Your task to perform on an android device: turn pop-ups off in chrome Image 0: 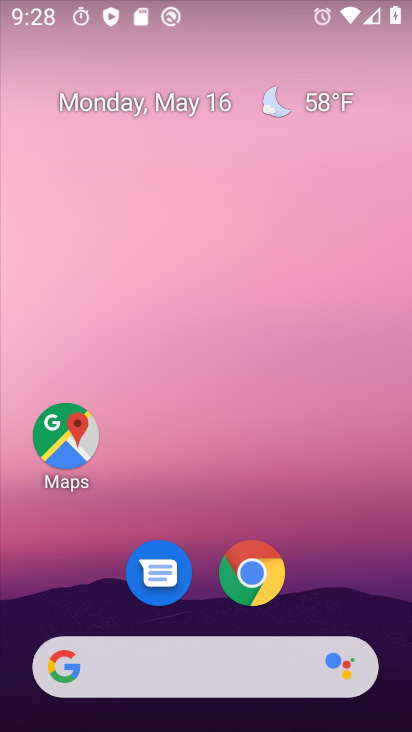
Step 0: drag from (274, 688) to (180, 184)
Your task to perform on an android device: turn pop-ups off in chrome Image 1: 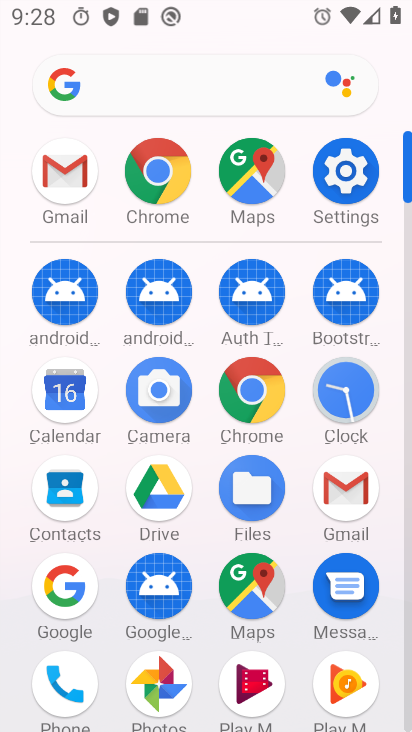
Step 1: click (157, 173)
Your task to perform on an android device: turn pop-ups off in chrome Image 2: 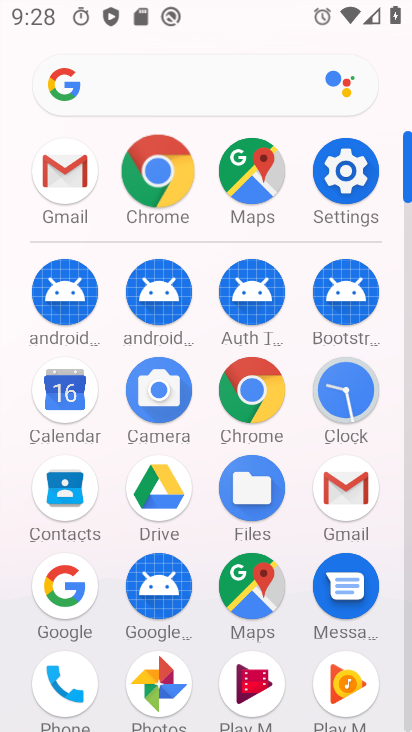
Step 2: click (157, 173)
Your task to perform on an android device: turn pop-ups off in chrome Image 3: 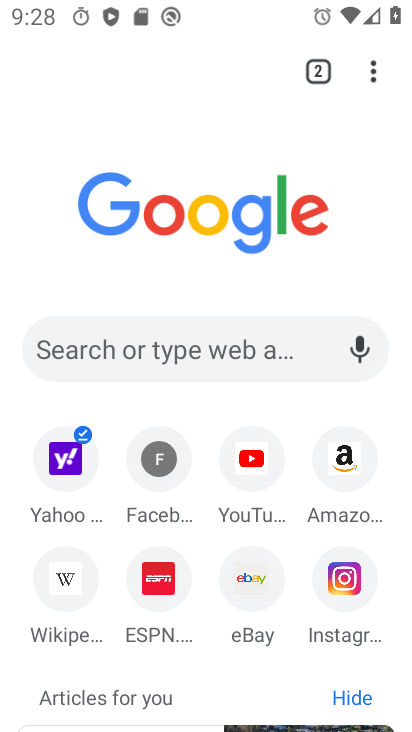
Step 3: click (367, 72)
Your task to perform on an android device: turn pop-ups off in chrome Image 4: 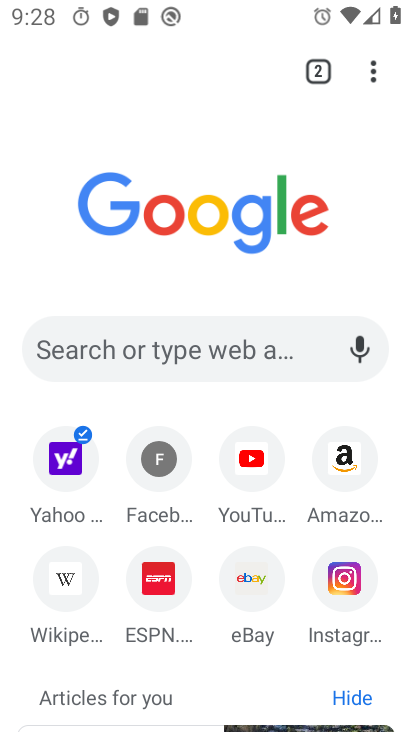
Step 4: click (368, 83)
Your task to perform on an android device: turn pop-ups off in chrome Image 5: 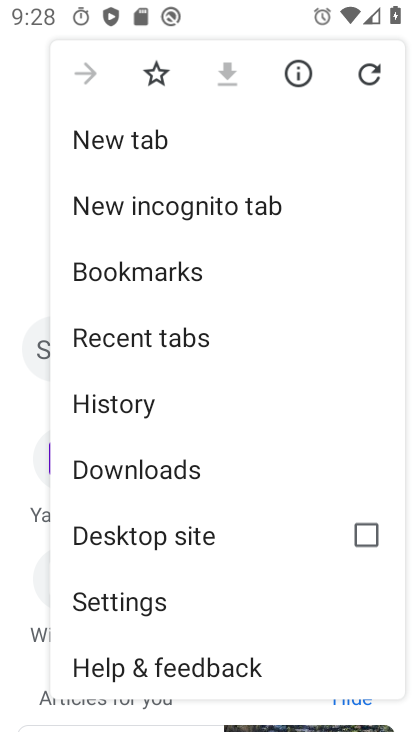
Step 5: click (44, 225)
Your task to perform on an android device: turn pop-ups off in chrome Image 6: 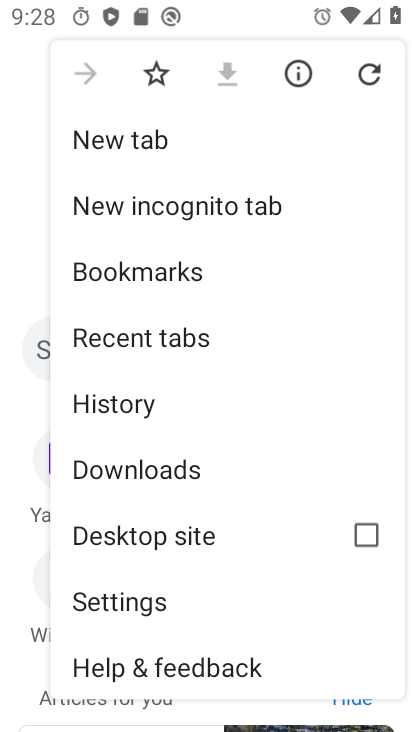
Step 6: click (40, 208)
Your task to perform on an android device: turn pop-ups off in chrome Image 7: 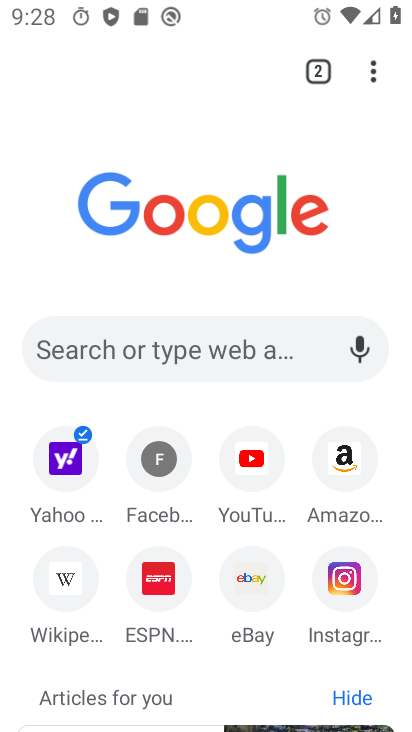
Step 7: click (40, 208)
Your task to perform on an android device: turn pop-ups off in chrome Image 8: 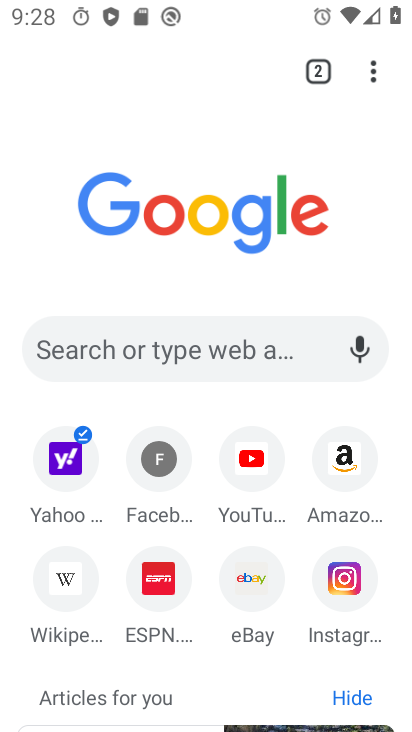
Step 8: click (40, 208)
Your task to perform on an android device: turn pop-ups off in chrome Image 9: 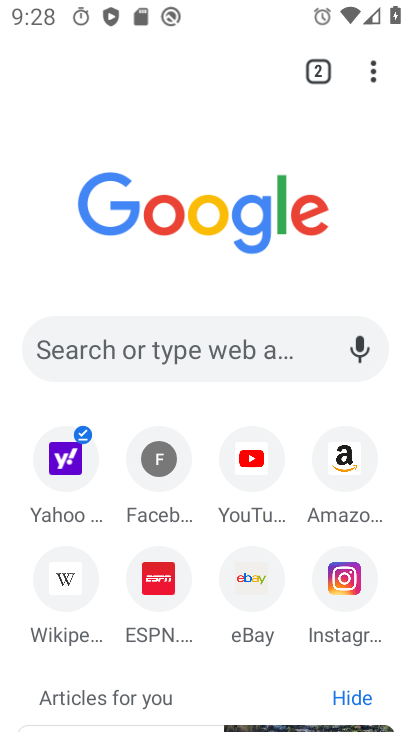
Step 9: press back button
Your task to perform on an android device: turn pop-ups off in chrome Image 10: 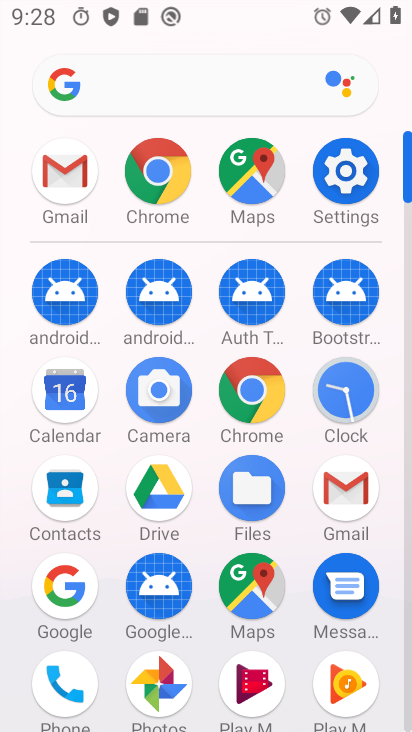
Step 10: click (157, 182)
Your task to perform on an android device: turn pop-ups off in chrome Image 11: 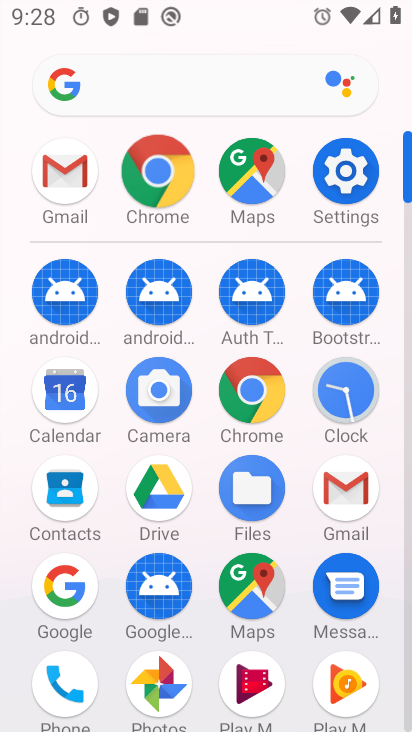
Step 11: click (161, 178)
Your task to perform on an android device: turn pop-ups off in chrome Image 12: 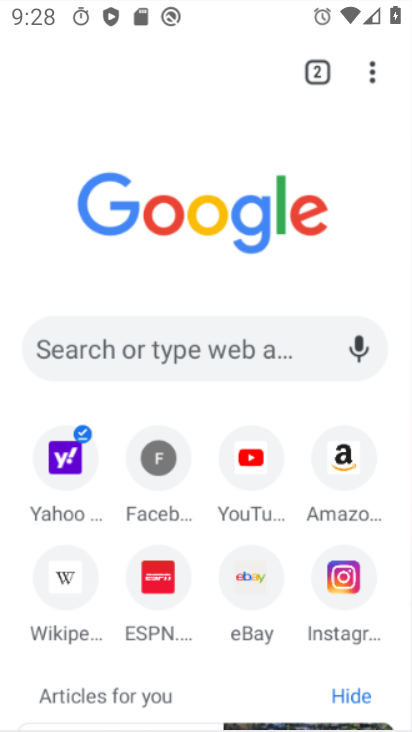
Step 12: click (162, 177)
Your task to perform on an android device: turn pop-ups off in chrome Image 13: 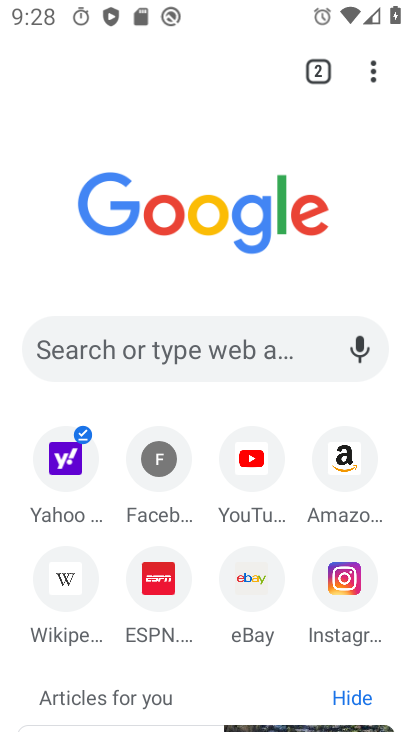
Step 13: drag from (364, 74) to (130, 597)
Your task to perform on an android device: turn pop-ups off in chrome Image 14: 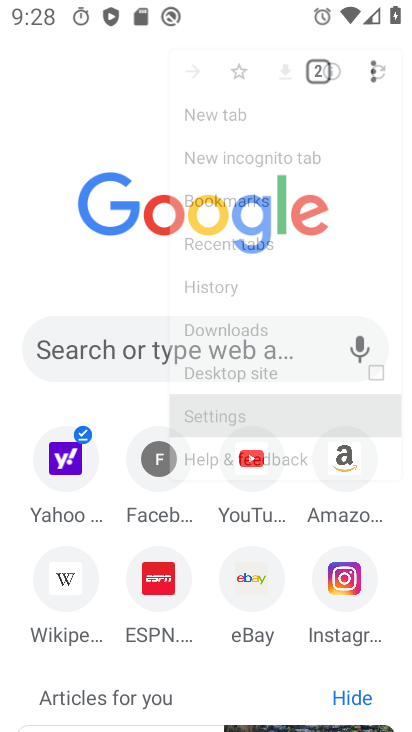
Step 14: click (136, 600)
Your task to perform on an android device: turn pop-ups off in chrome Image 15: 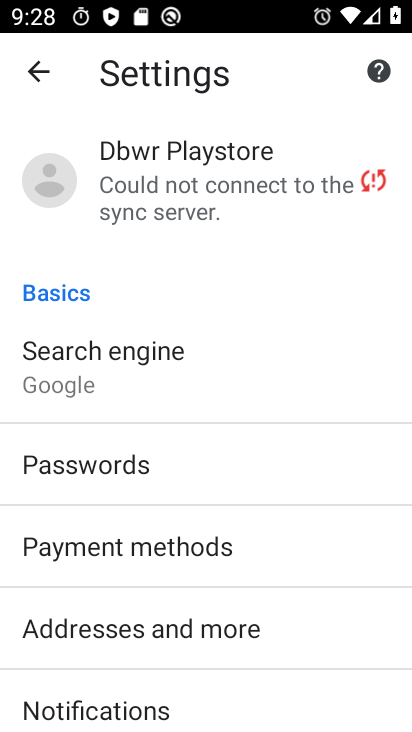
Step 15: drag from (122, 519) to (124, 110)
Your task to perform on an android device: turn pop-ups off in chrome Image 16: 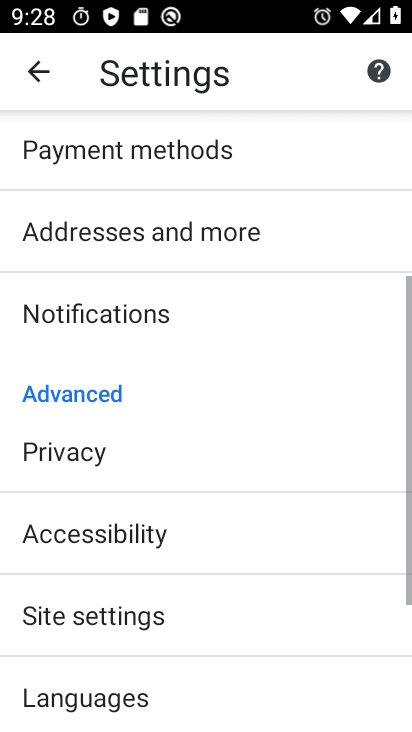
Step 16: drag from (179, 585) to (158, 259)
Your task to perform on an android device: turn pop-ups off in chrome Image 17: 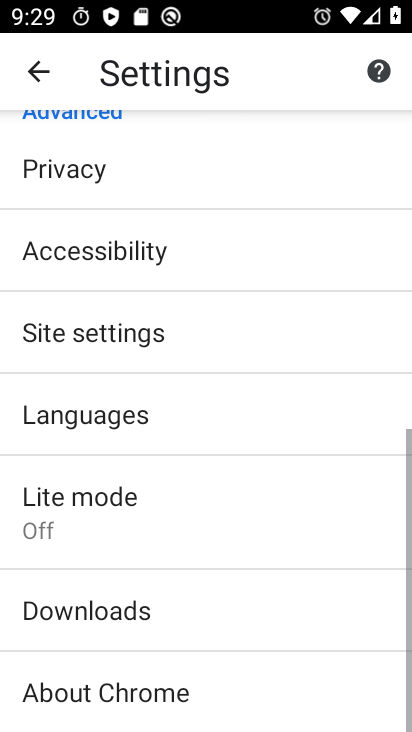
Step 17: drag from (186, 502) to (153, 191)
Your task to perform on an android device: turn pop-ups off in chrome Image 18: 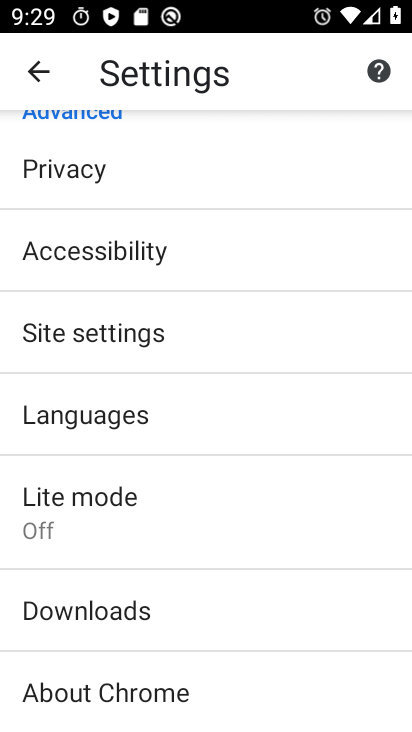
Step 18: click (71, 323)
Your task to perform on an android device: turn pop-ups off in chrome Image 19: 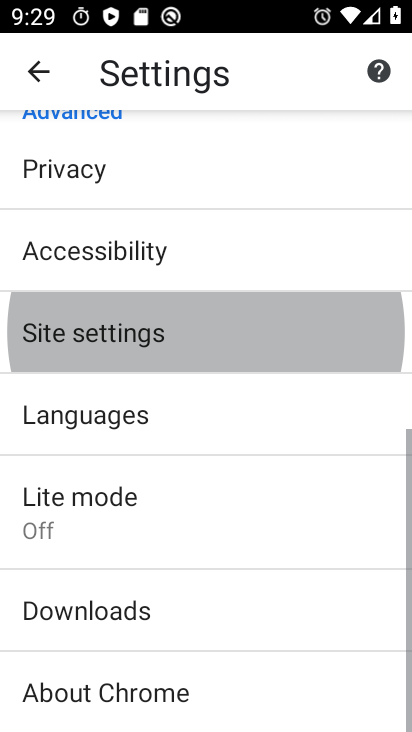
Step 19: click (71, 323)
Your task to perform on an android device: turn pop-ups off in chrome Image 20: 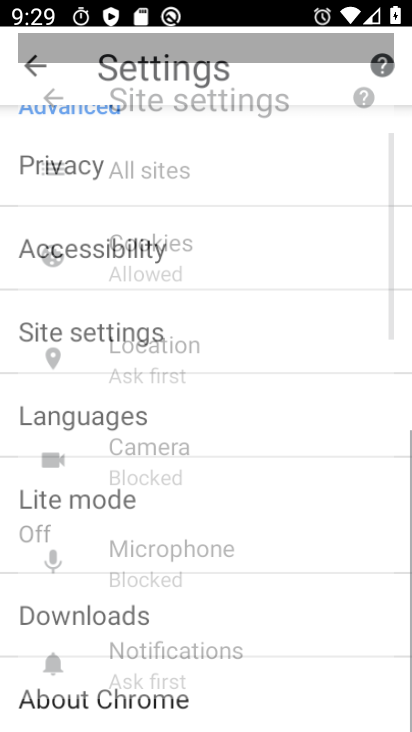
Step 20: click (71, 323)
Your task to perform on an android device: turn pop-ups off in chrome Image 21: 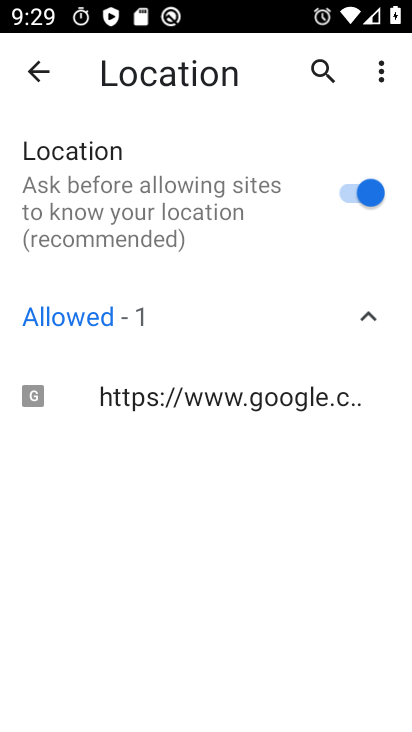
Step 21: click (32, 65)
Your task to perform on an android device: turn pop-ups off in chrome Image 22: 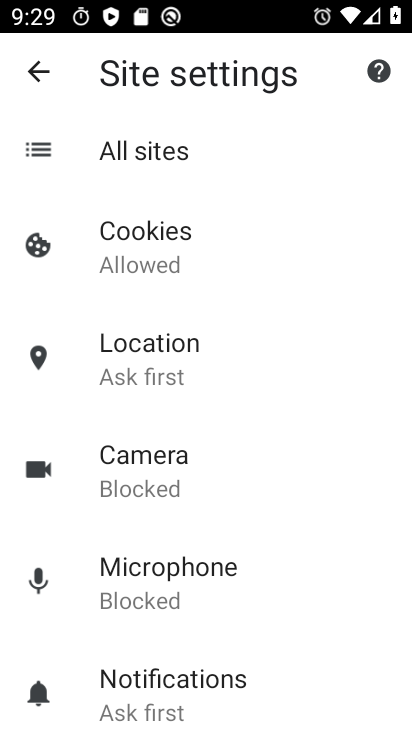
Step 22: drag from (185, 550) to (166, 23)
Your task to perform on an android device: turn pop-ups off in chrome Image 23: 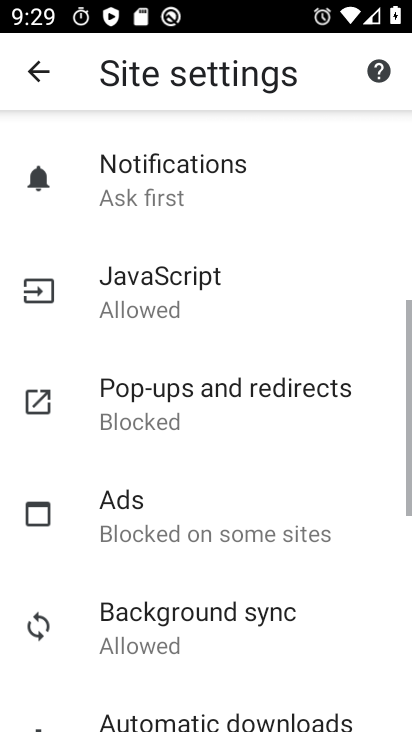
Step 23: drag from (156, 417) to (156, 65)
Your task to perform on an android device: turn pop-ups off in chrome Image 24: 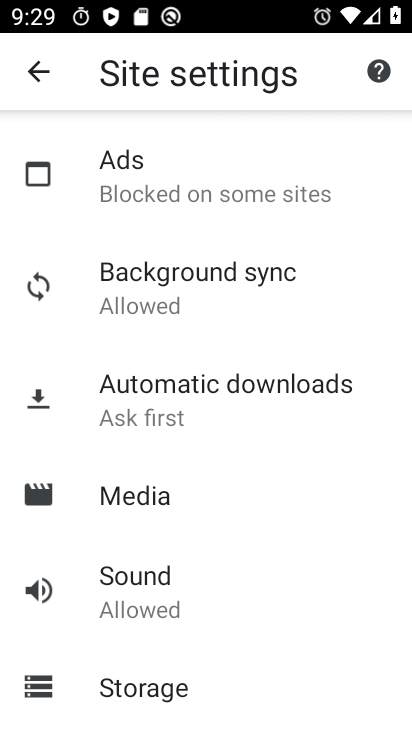
Step 24: drag from (145, 243) to (156, 690)
Your task to perform on an android device: turn pop-ups off in chrome Image 25: 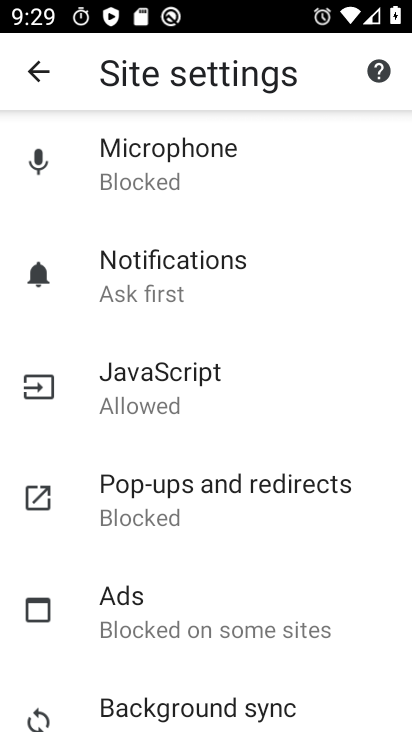
Step 25: click (179, 483)
Your task to perform on an android device: turn pop-ups off in chrome Image 26: 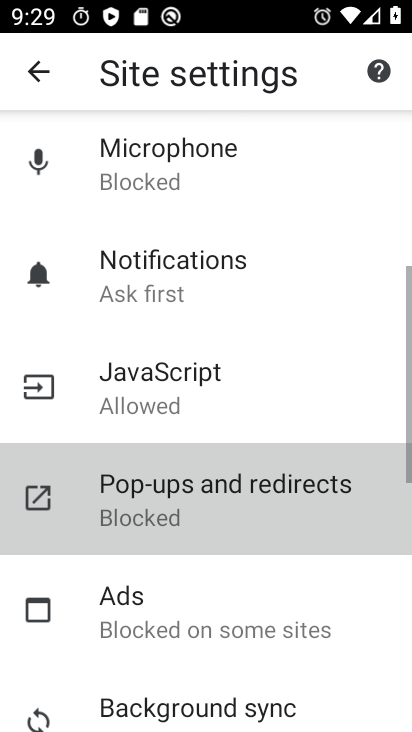
Step 26: click (179, 481)
Your task to perform on an android device: turn pop-ups off in chrome Image 27: 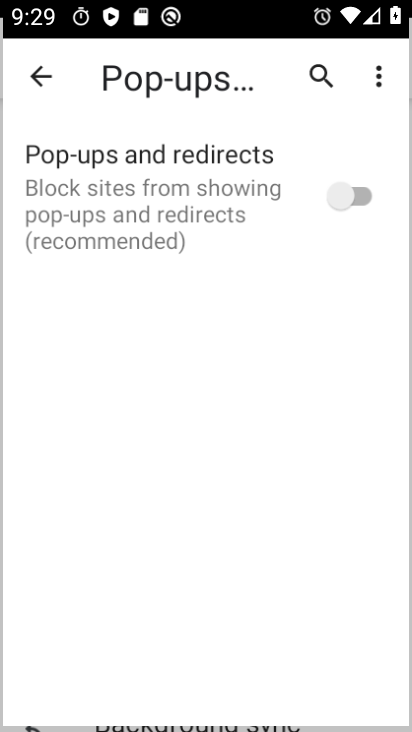
Step 27: click (179, 481)
Your task to perform on an android device: turn pop-ups off in chrome Image 28: 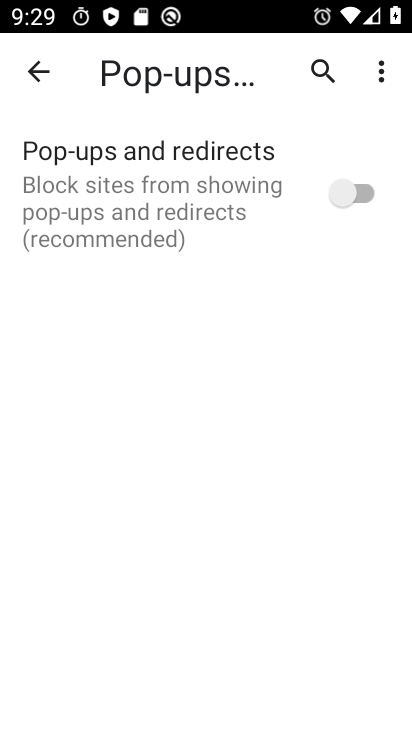
Step 28: click (179, 481)
Your task to perform on an android device: turn pop-ups off in chrome Image 29: 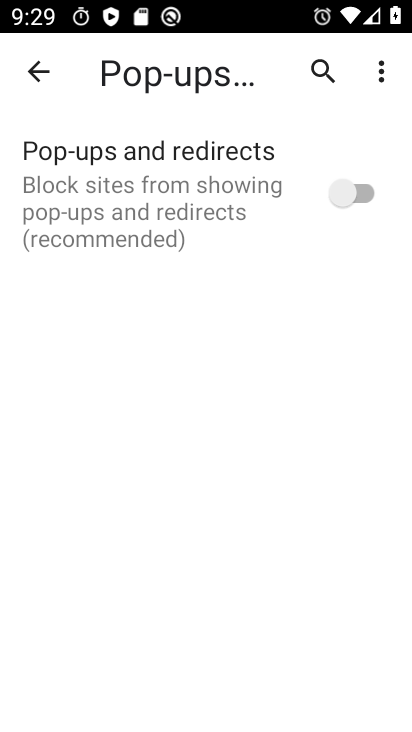
Step 29: task complete